Your task to perform on an android device: Open the calendar app, open the side menu, and click the "Day" option Image 0: 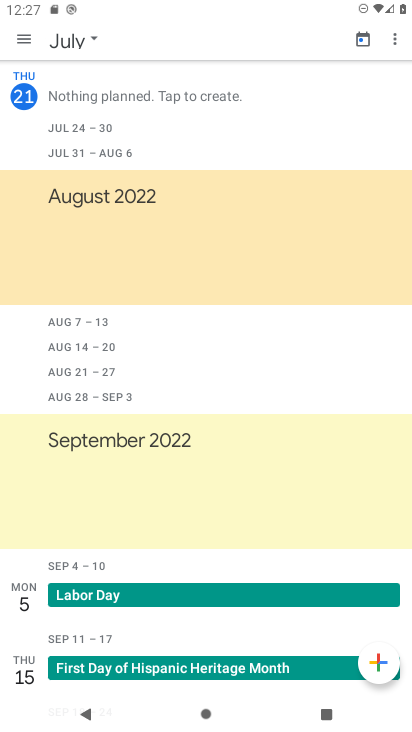
Step 0: press home button
Your task to perform on an android device: Open the calendar app, open the side menu, and click the "Day" option Image 1: 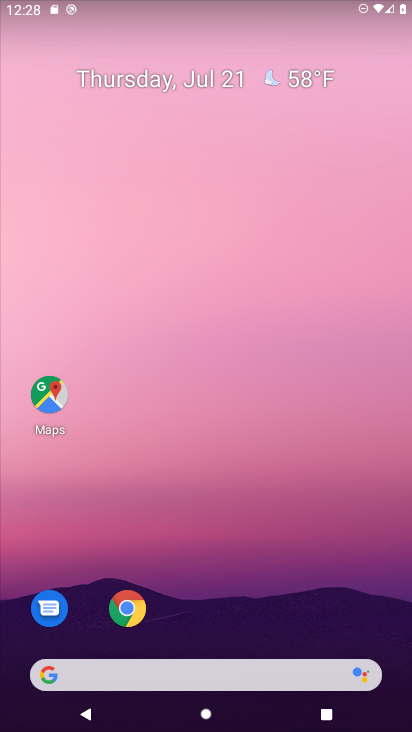
Step 1: drag from (234, 551) to (185, 18)
Your task to perform on an android device: Open the calendar app, open the side menu, and click the "Day" option Image 2: 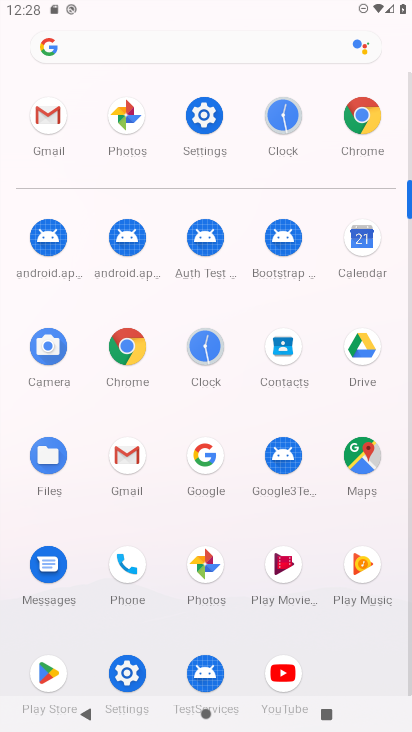
Step 2: click (359, 236)
Your task to perform on an android device: Open the calendar app, open the side menu, and click the "Day" option Image 3: 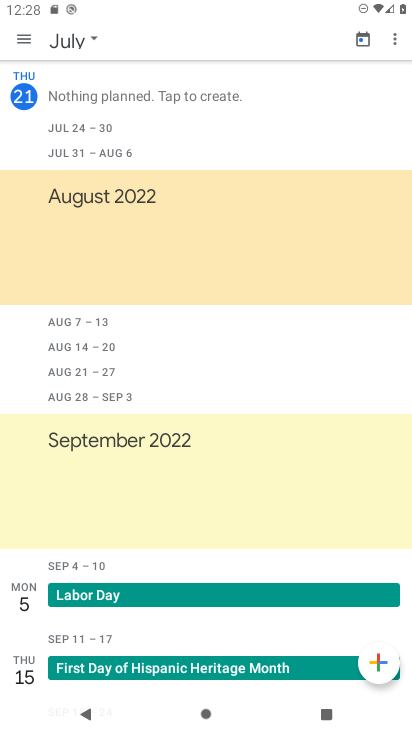
Step 3: click (20, 39)
Your task to perform on an android device: Open the calendar app, open the side menu, and click the "Day" option Image 4: 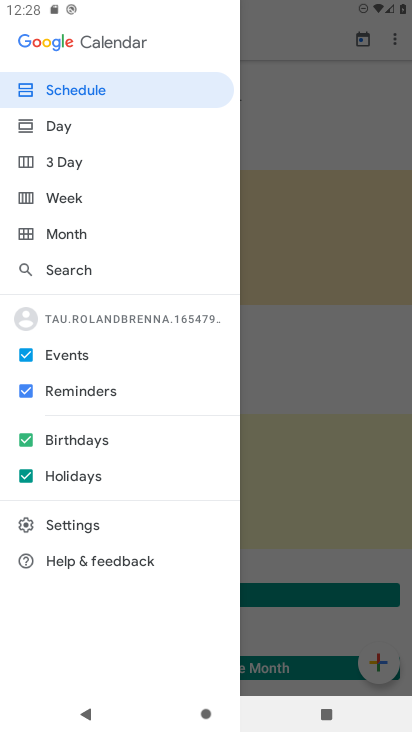
Step 4: click (57, 127)
Your task to perform on an android device: Open the calendar app, open the side menu, and click the "Day" option Image 5: 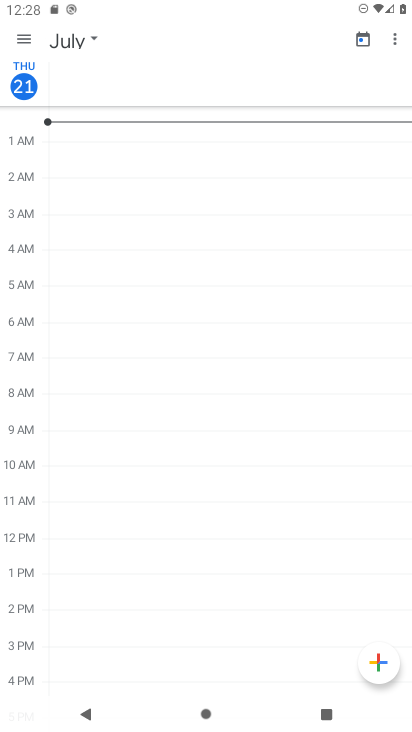
Step 5: task complete